Your task to perform on an android device: delete location history Image 0: 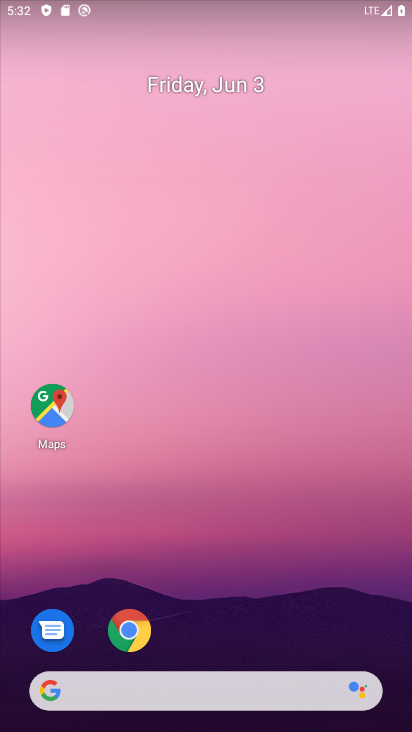
Step 0: click (81, 415)
Your task to perform on an android device: delete location history Image 1: 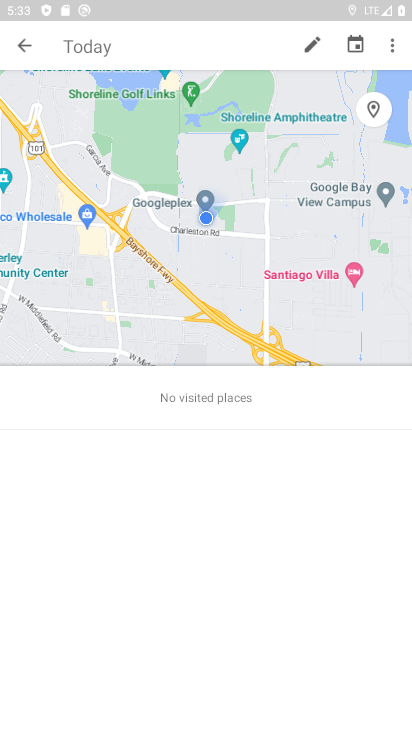
Step 1: click (395, 47)
Your task to perform on an android device: delete location history Image 2: 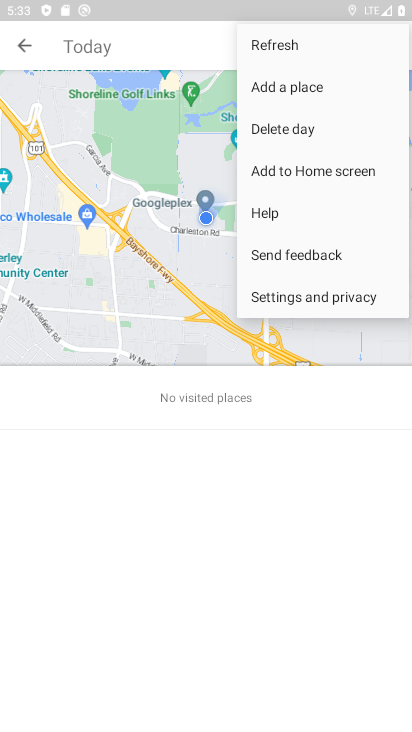
Step 2: click (395, 47)
Your task to perform on an android device: delete location history Image 3: 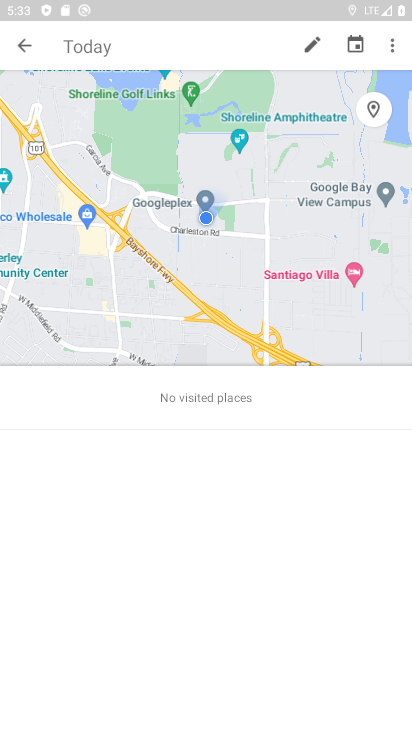
Step 3: click (395, 47)
Your task to perform on an android device: delete location history Image 4: 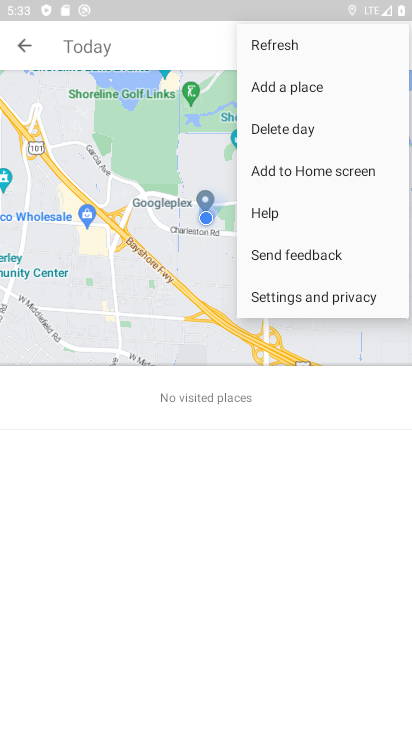
Step 4: click (305, 301)
Your task to perform on an android device: delete location history Image 5: 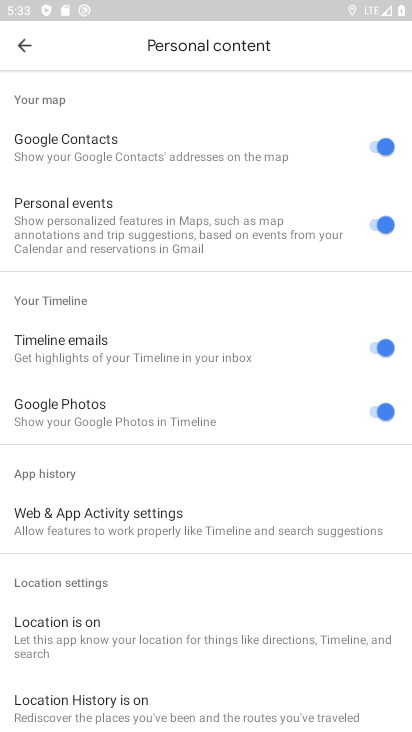
Step 5: drag from (156, 576) to (221, 112)
Your task to perform on an android device: delete location history Image 6: 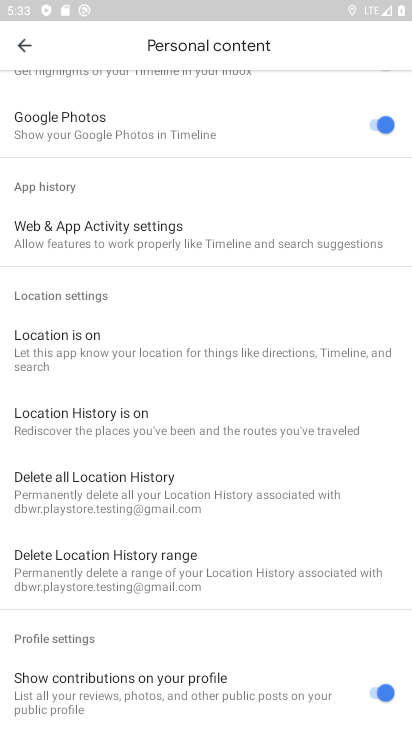
Step 6: click (82, 474)
Your task to perform on an android device: delete location history Image 7: 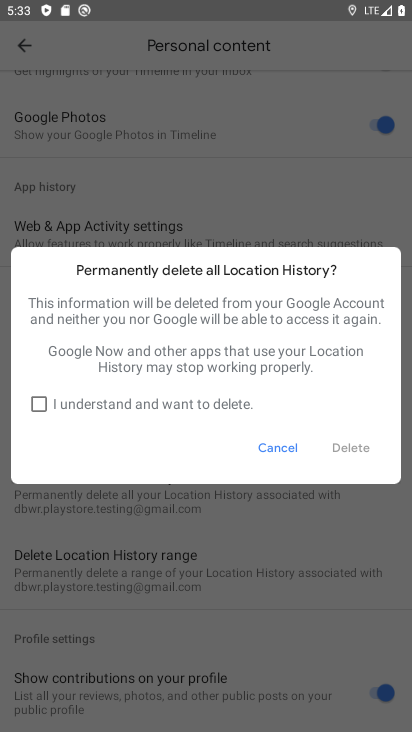
Step 7: click (45, 396)
Your task to perform on an android device: delete location history Image 8: 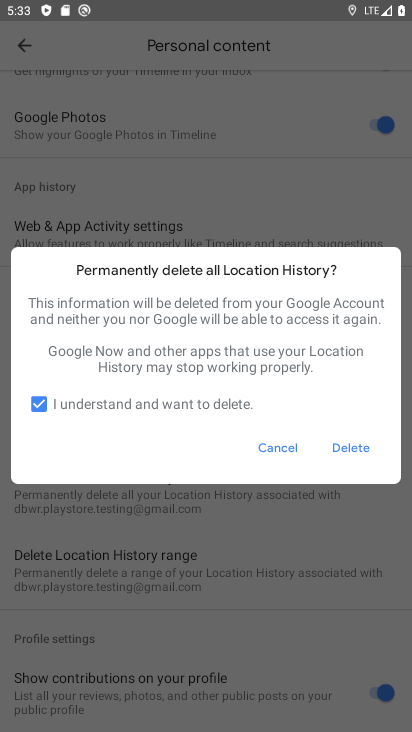
Step 8: click (366, 447)
Your task to perform on an android device: delete location history Image 9: 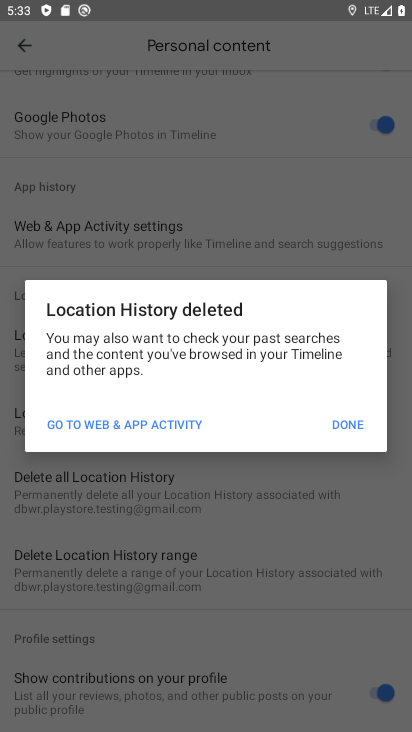
Step 9: task complete